Your task to perform on an android device: Empty the shopping cart on target. Search for "logitech g502" on target, select the first entry, add it to the cart, then select checkout. Image 0: 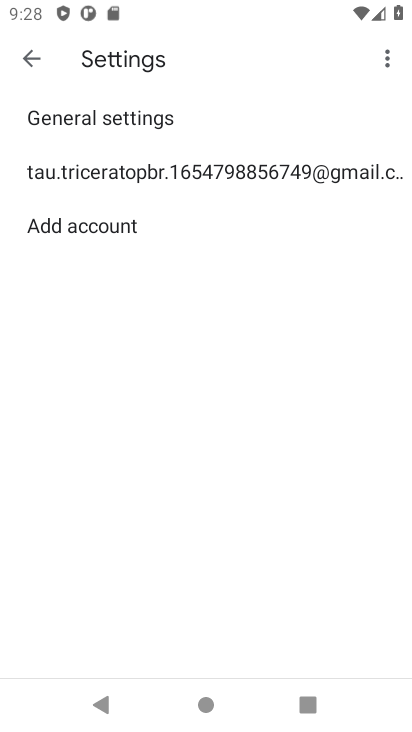
Step 0: press home button
Your task to perform on an android device: Empty the shopping cart on target. Search for "logitech g502" on target, select the first entry, add it to the cart, then select checkout. Image 1: 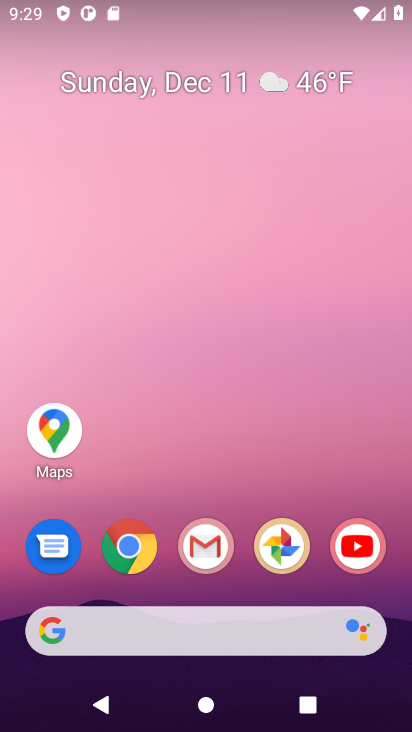
Step 1: click (129, 552)
Your task to perform on an android device: Empty the shopping cart on target. Search for "logitech g502" on target, select the first entry, add it to the cart, then select checkout. Image 2: 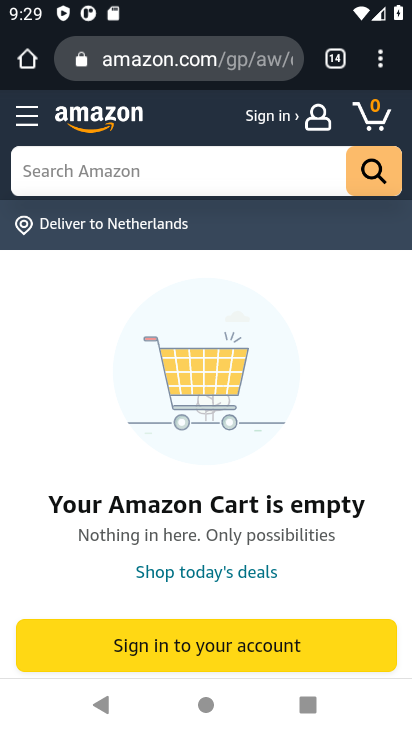
Step 2: click (165, 61)
Your task to perform on an android device: Empty the shopping cart on target. Search for "logitech g502" on target, select the first entry, add it to the cart, then select checkout. Image 3: 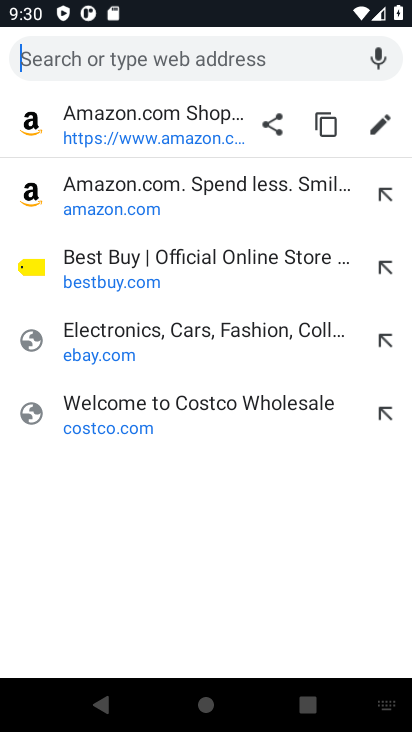
Step 3: type "target.com"
Your task to perform on an android device: Empty the shopping cart on target. Search for "logitech g502" on target, select the first entry, add it to the cart, then select checkout. Image 4: 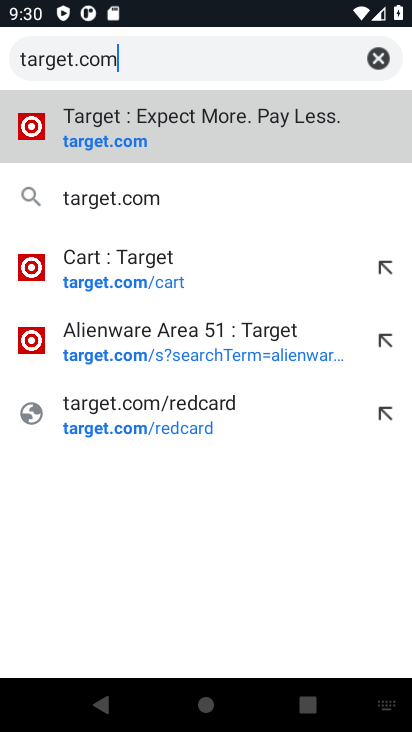
Step 4: click (91, 140)
Your task to perform on an android device: Empty the shopping cart on target. Search for "logitech g502" on target, select the first entry, add it to the cart, then select checkout. Image 5: 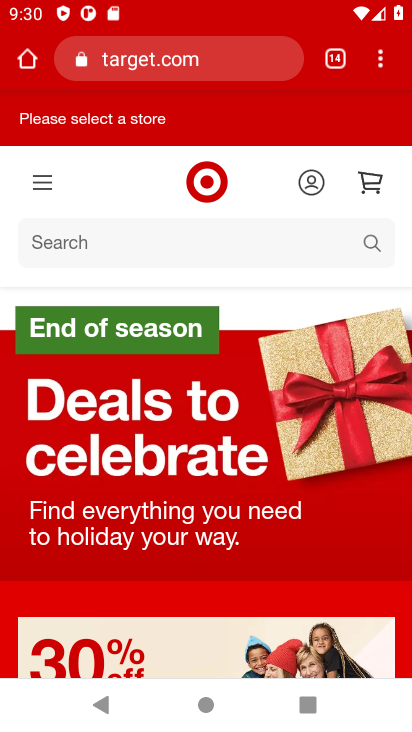
Step 5: click (373, 186)
Your task to perform on an android device: Empty the shopping cart on target. Search for "logitech g502" on target, select the first entry, add it to the cart, then select checkout. Image 6: 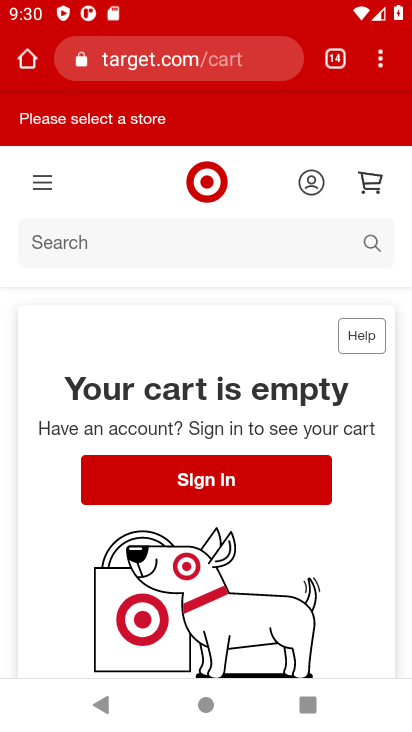
Step 6: click (98, 244)
Your task to perform on an android device: Empty the shopping cart on target. Search for "logitech g502" on target, select the first entry, add it to the cart, then select checkout. Image 7: 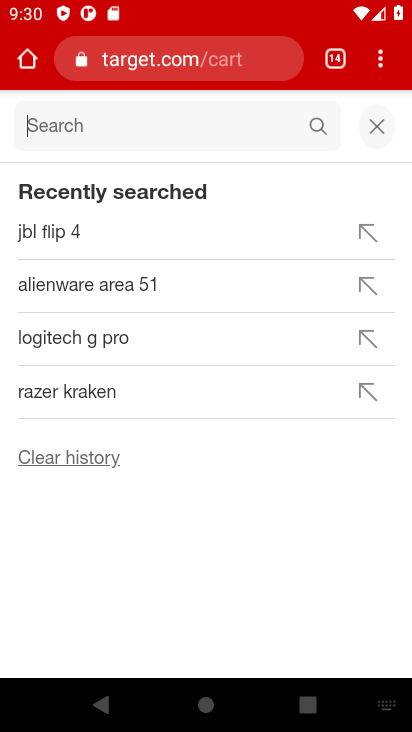
Step 7: type "logitech g502"
Your task to perform on an android device: Empty the shopping cart on target. Search for "logitech g502" on target, select the first entry, add it to the cart, then select checkout. Image 8: 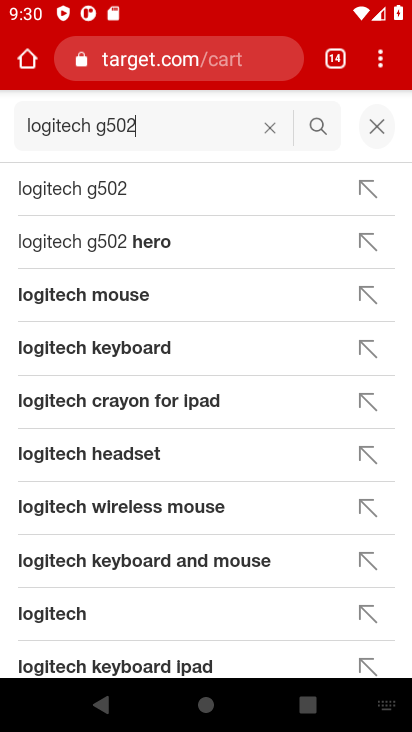
Step 8: click (91, 200)
Your task to perform on an android device: Empty the shopping cart on target. Search for "logitech g502" on target, select the first entry, add it to the cart, then select checkout. Image 9: 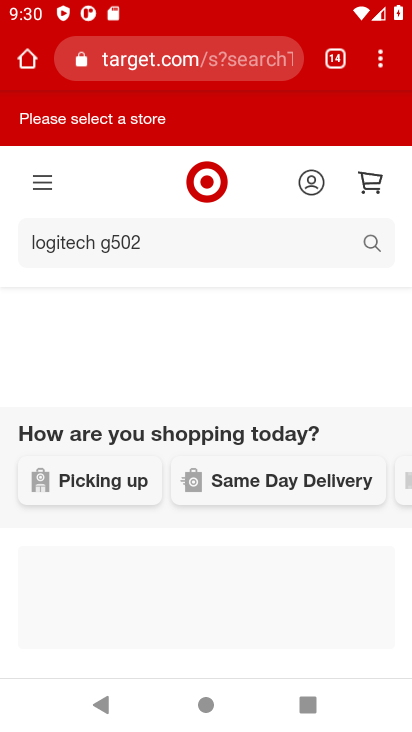
Step 9: drag from (189, 529) to (157, 167)
Your task to perform on an android device: Empty the shopping cart on target. Search for "logitech g502" on target, select the first entry, add it to the cart, then select checkout. Image 10: 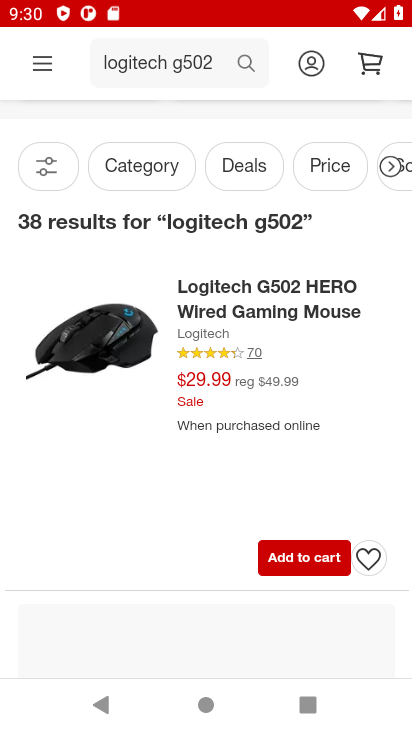
Step 10: click (282, 555)
Your task to perform on an android device: Empty the shopping cart on target. Search for "logitech g502" on target, select the first entry, add it to the cart, then select checkout. Image 11: 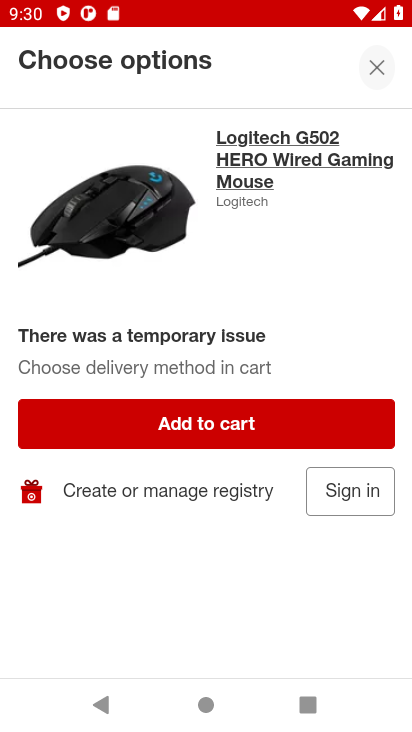
Step 11: click (229, 429)
Your task to perform on an android device: Empty the shopping cart on target. Search for "logitech g502" on target, select the first entry, add it to the cart, then select checkout. Image 12: 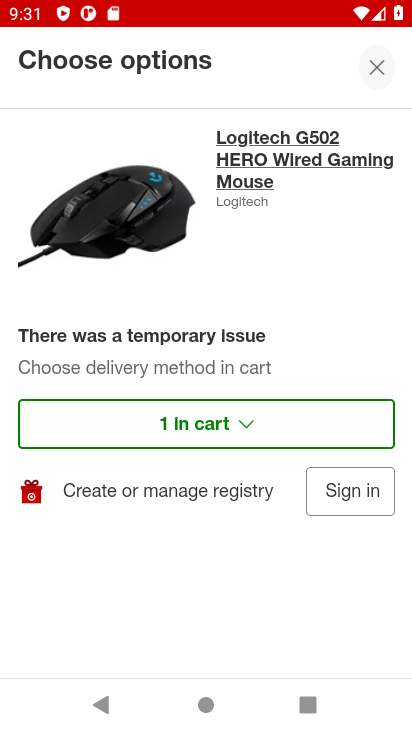
Step 12: drag from (229, 429) to (212, 544)
Your task to perform on an android device: Empty the shopping cart on target. Search for "logitech g502" on target, select the first entry, add it to the cart, then select checkout. Image 13: 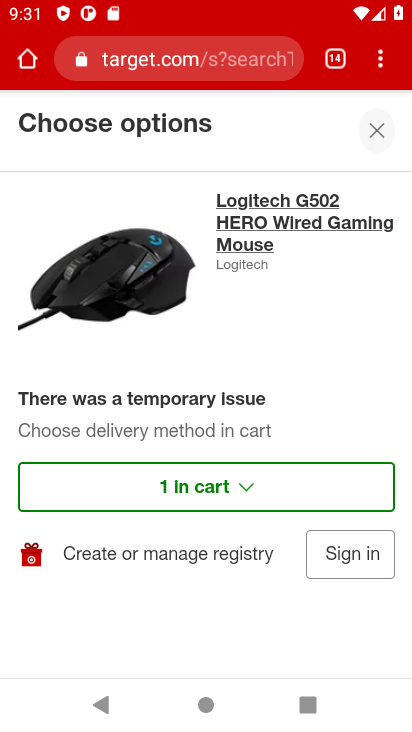
Step 13: click (375, 130)
Your task to perform on an android device: Empty the shopping cart on target. Search for "logitech g502" on target, select the first entry, add it to the cart, then select checkout. Image 14: 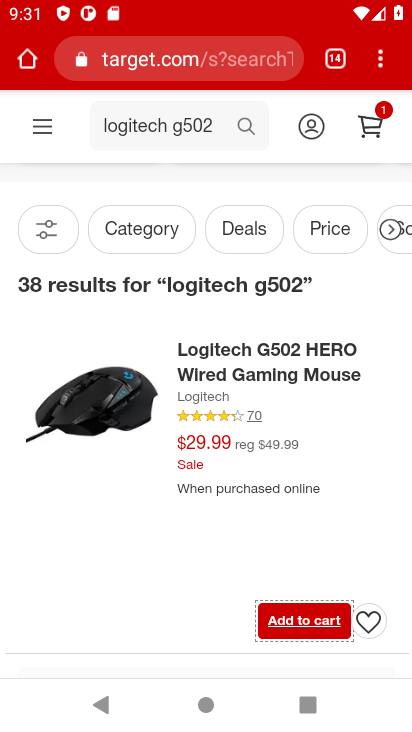
Step 14: click (382, 125)
Your task to perform on an android device: Empty the shopping cart on target. Search for "logitech g502" on target, select the first entry, add it to the cart, then select checkout. Image 15: 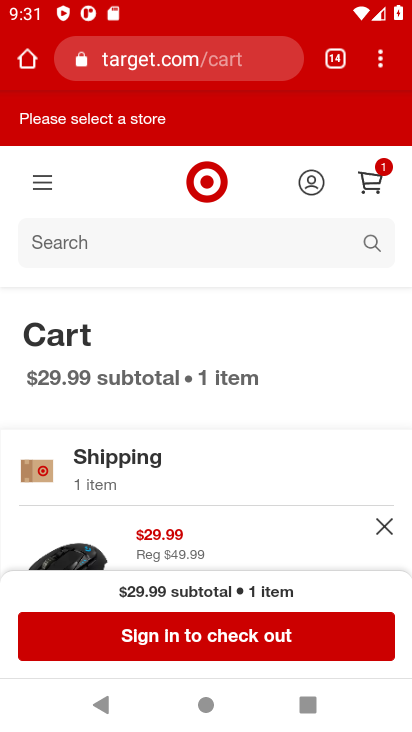
Step 15: click (199, 631)
Your task to perform on an android device: Empty the shopping cart on target. Search for "logitech g502" on target, select the first entry, add it to the cart, then select checkout. Image 16: 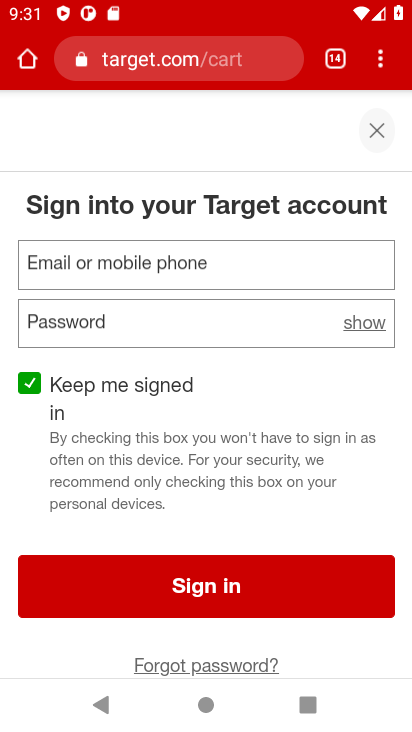
Step 16: task complete